Your task to perform on an android device: see sites visited before in the chrome app Image 0: 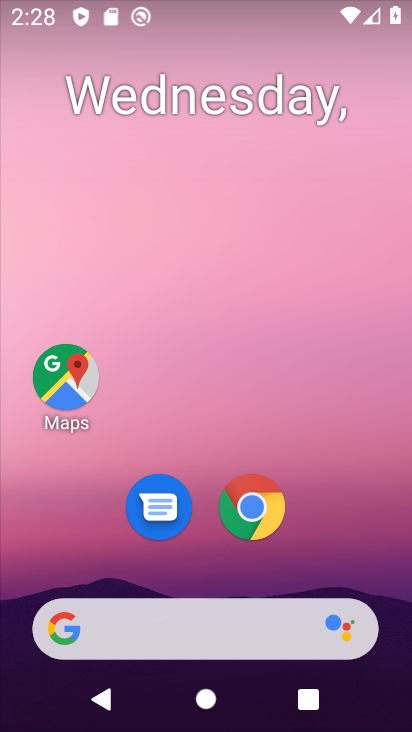
Step 0: click (259, 496)
Your task to perform on an android device: see sites visited before in the chrome app Image 1: 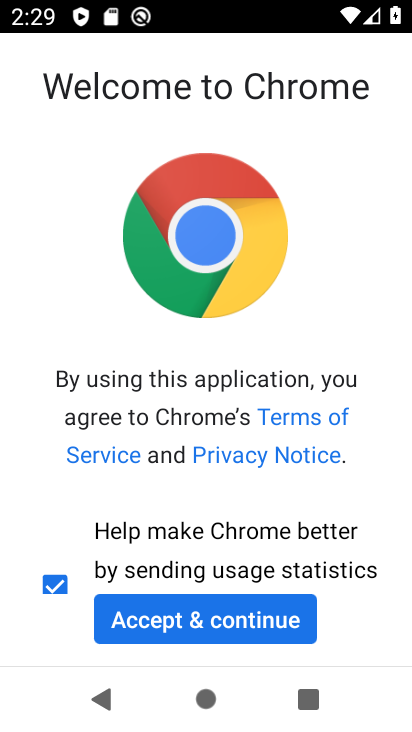
Step 1: click (262, 610)
Your task to perform on an android device: see sites visited before in the chrome app Image 2: 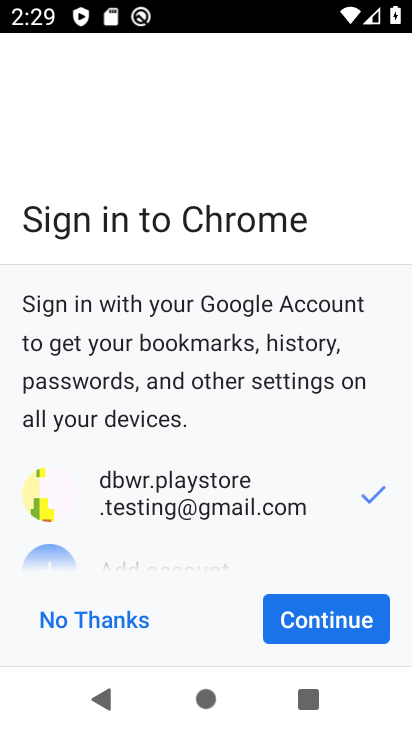
Step 2: click (303, 616)
Your task to perform on an android device: see sites visited before in the chrome app Image 3: 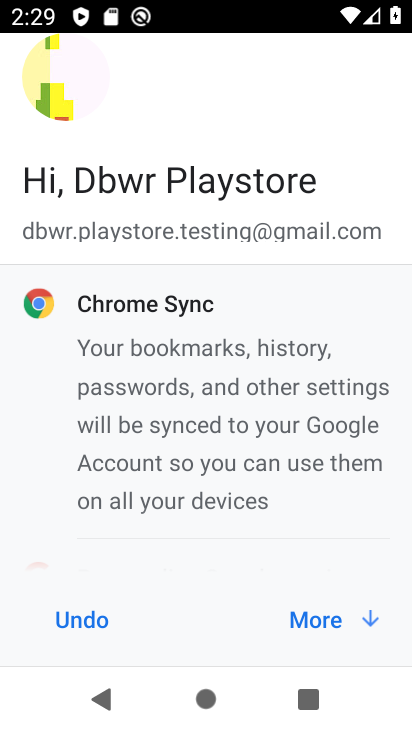
Step 3: click (303, 616)
Your task to perform on an android device: see sites visited before in the chrome app Image 4: 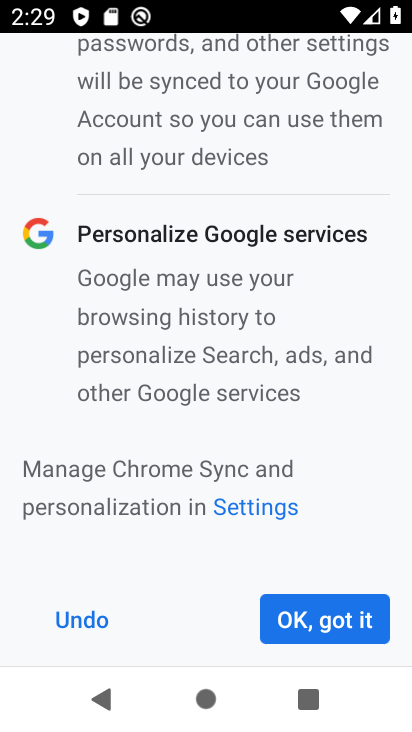
Step 4: click (303, 615)
Your task to perform on an android device: see sites visited before in the chrome app Image 5: 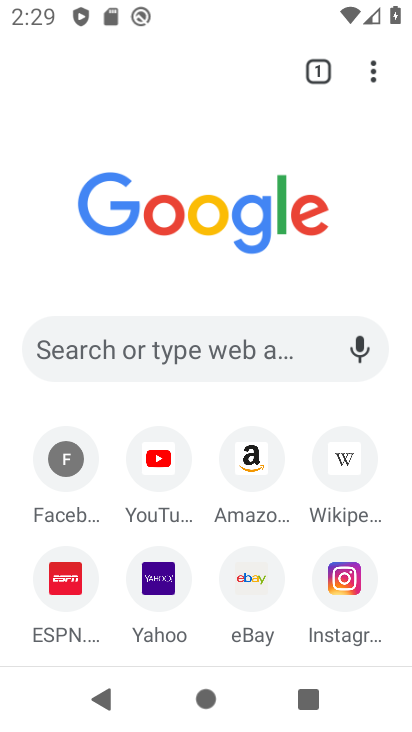
Step 5: click (374, 72)
Your task to perform on an android device: see sites visited before in the chrome app Image 6: 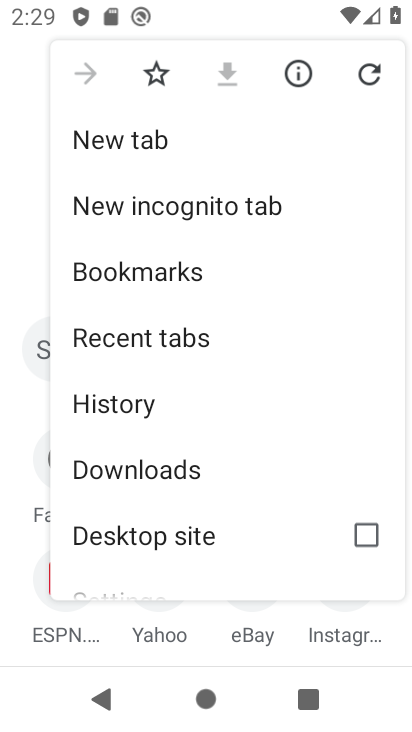
Step 6: click (142, 399)
Your task to perform on an android device: see sites visited before in the chrome app Image 7: 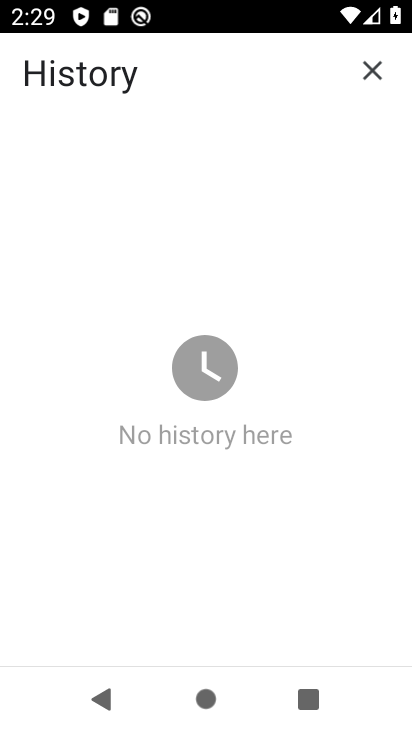
Step 7: task complete